Your task to perform on an android device: toggle javascript in the chrome app Image 0: 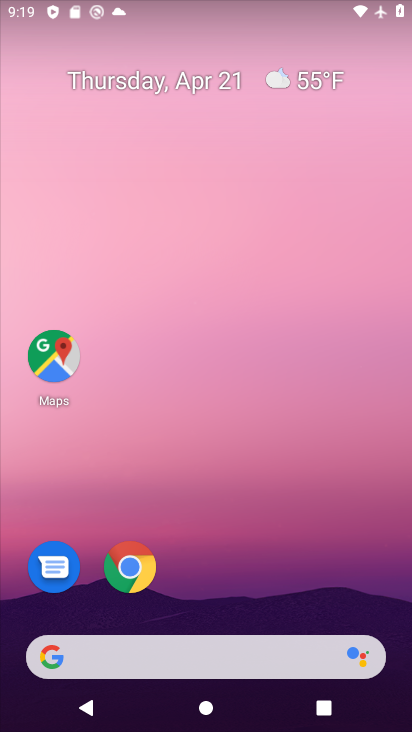
Step 0: click (127, 568)
Your task to perform on an android device: toggle javascript in the chrome app Image 1: 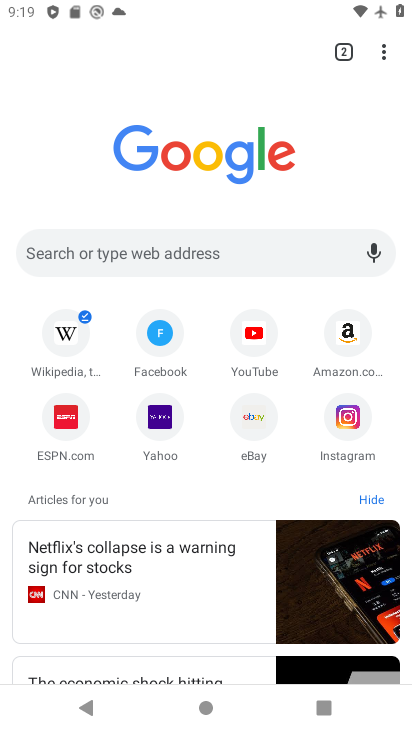
Step 1: click (382, 50)
Your task to perform on an android device: toggle javascript in the chrome app Image 2: 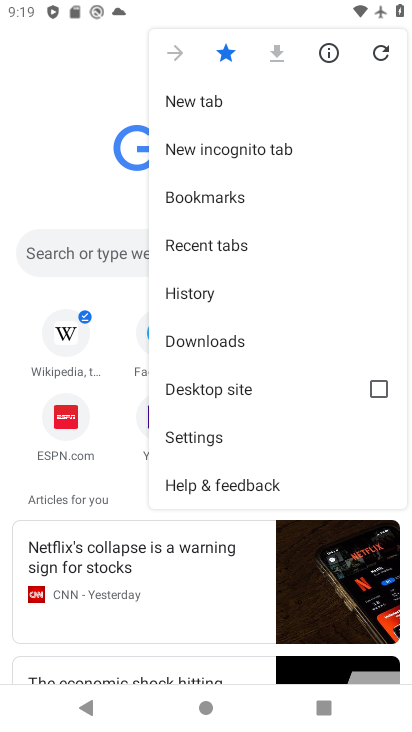
Step 2: click (197, 432)
Your task to perform on an android device: toggle javascript in the chrome app Image 3: 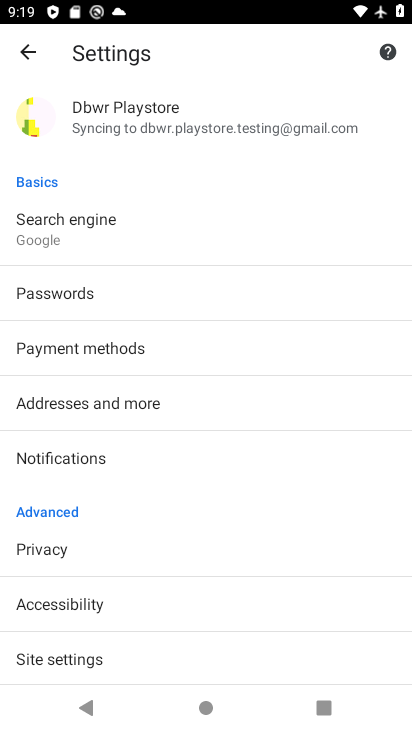
Step 3: drag from (168, 591) to (208, 301)
Your task to perform on an android device: toggle javascript in the chrome app Image 4: 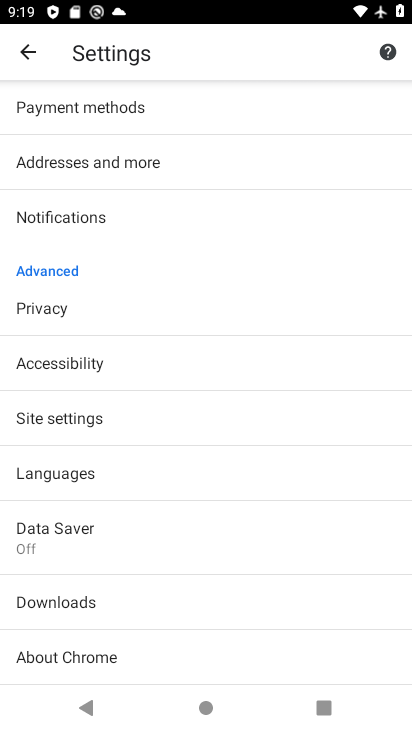
Step 4: click (44, 420)
Your task to perform on an android device: toggle javascript in the chrome app Image 5: 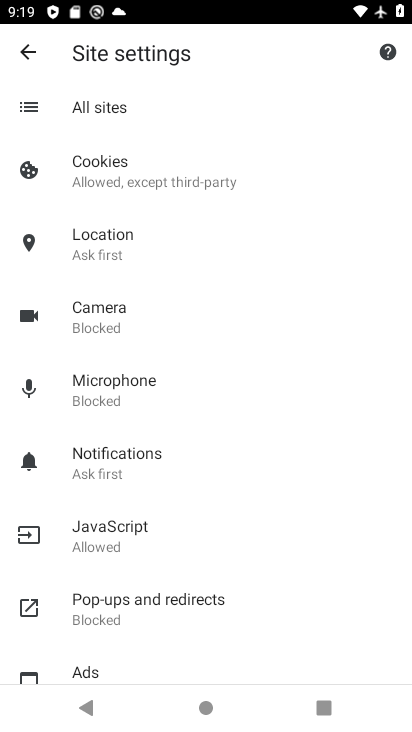
Step 5: click (93, 532)
Your task to perform on an android device: toggle javascript in the chrome app Image 6: 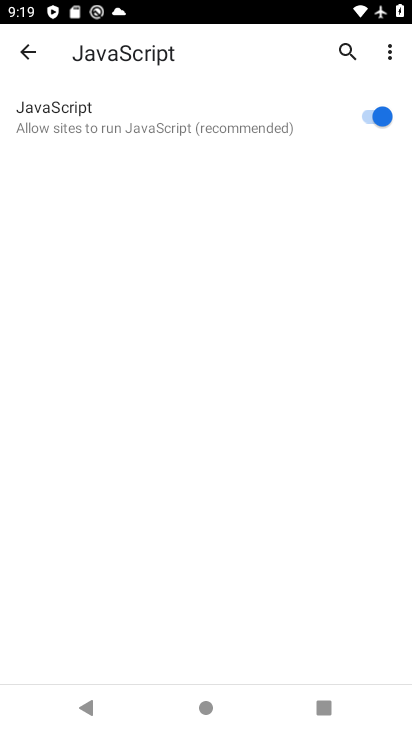
Step 6: click (368, 112)
Your task to perform on an android device: toggle javascript in the chrome app Image 7: 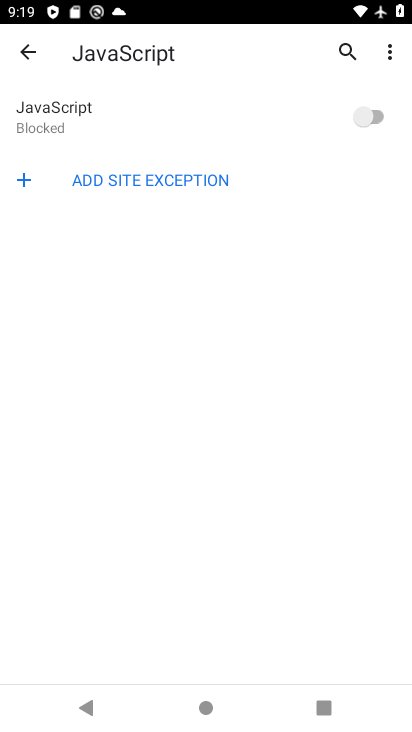
Step 7: task complete